Your task to perform on an android device: open the mobile data screen to see how much data has been used Image 0: 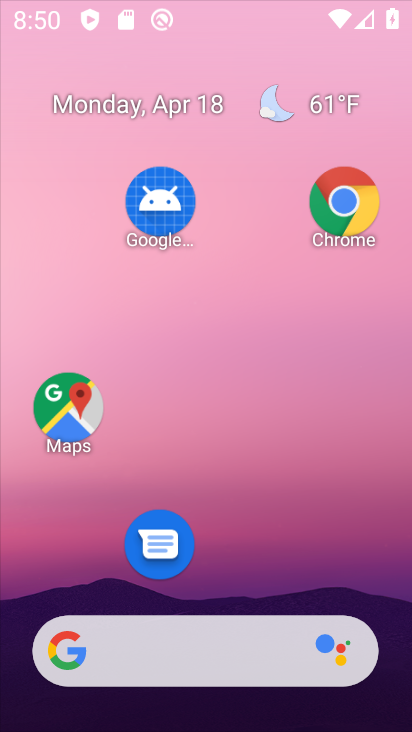
Step 0: drag from (214, 595) to (231, 2)
Your task to perform on an android device: open the mobile data screen to see how much data has been used Image 1: 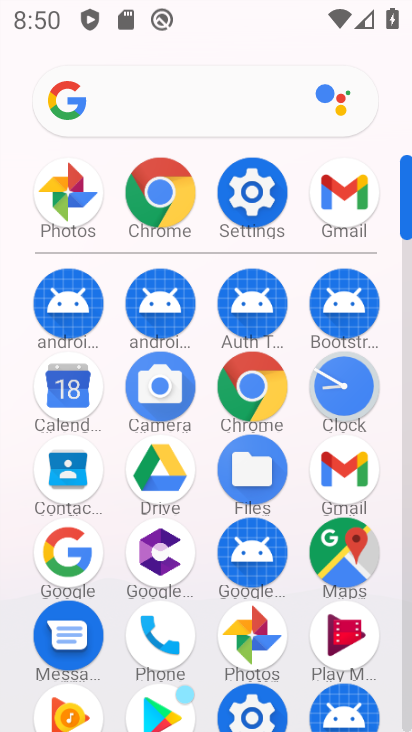
Step 1: click (263, 209)
Your task to perform on an android device: open the mobile data screen to see how much data has been used Image 2: 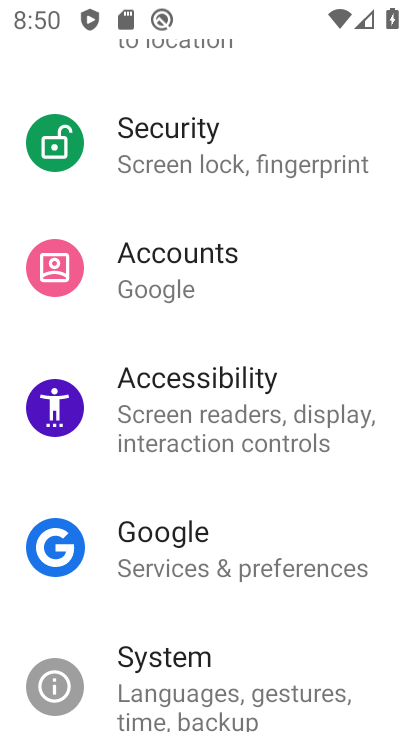
Step 2: drag from (259, 193) to (233, 720)
Your task to perform on an android device: open the mobile data screen to see how much data has been used Image 3: 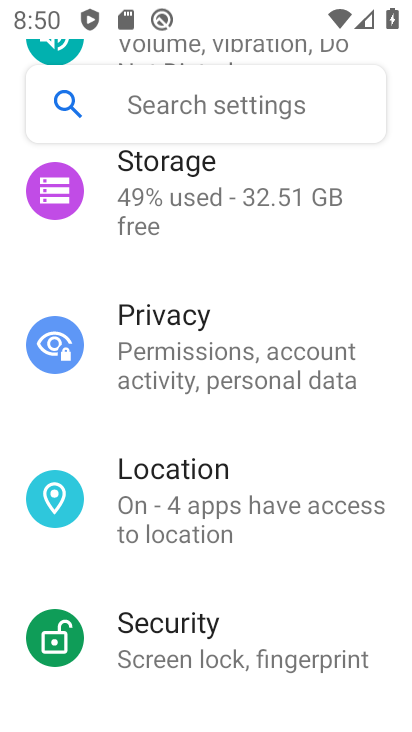
Step 3: drag from (193, 217) to (189, 679)
Your task to perform on an android device: open the mobile data screen to see how much data has been used Image 4: 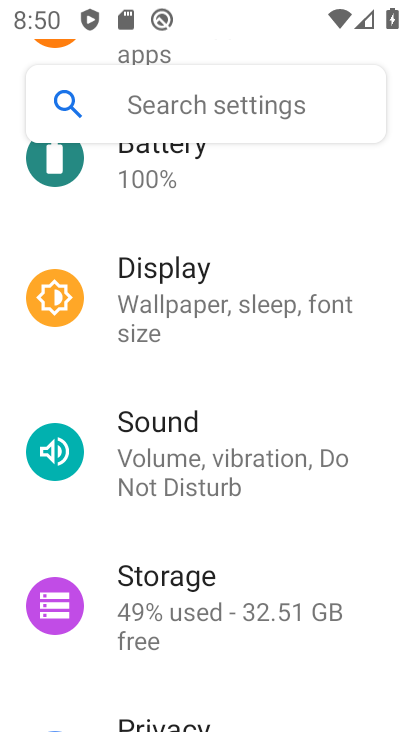
Step 4: drag from (165, 216) to (166, 619)
Your task to perform on an android device: open the mobile data screen to see how much data has been used Image 5: 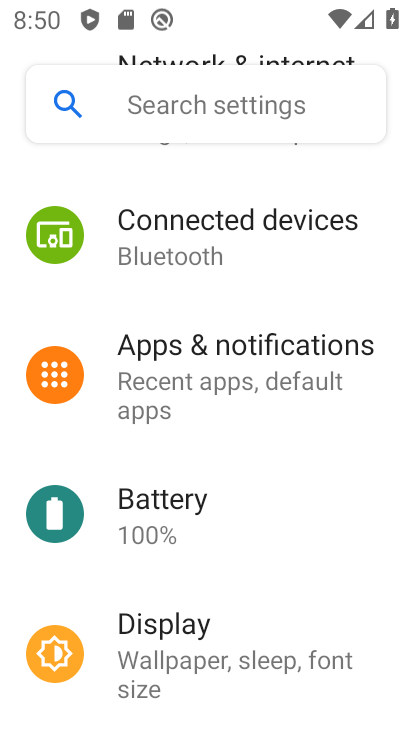
Step 5: drag from (202, 272) to (204, 698)
Your task to perform on an android device: open the mobile data screen to see how much data has been used Image 6: 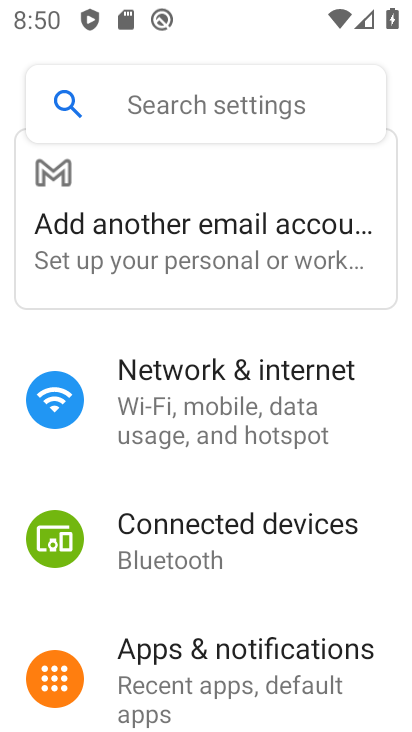
Step 6: click (187, 393)
Your task to perform on an android device: open the mobile data screen to see how much data has been used Image 7: 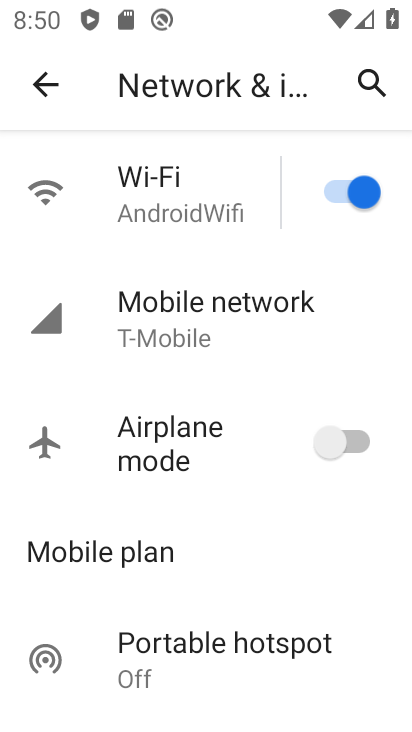
Step 7: click (195, 350)
Your task to perform on an android device: open the mobile data screen to see how much data has been used Image 8: 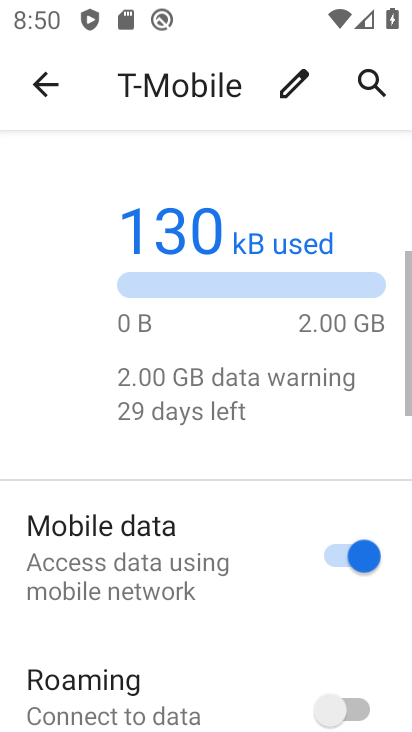
Step 8: task complete